Your task to perform on an android device: open app "Yahoo Mail" (install if not already installed) Image 0: 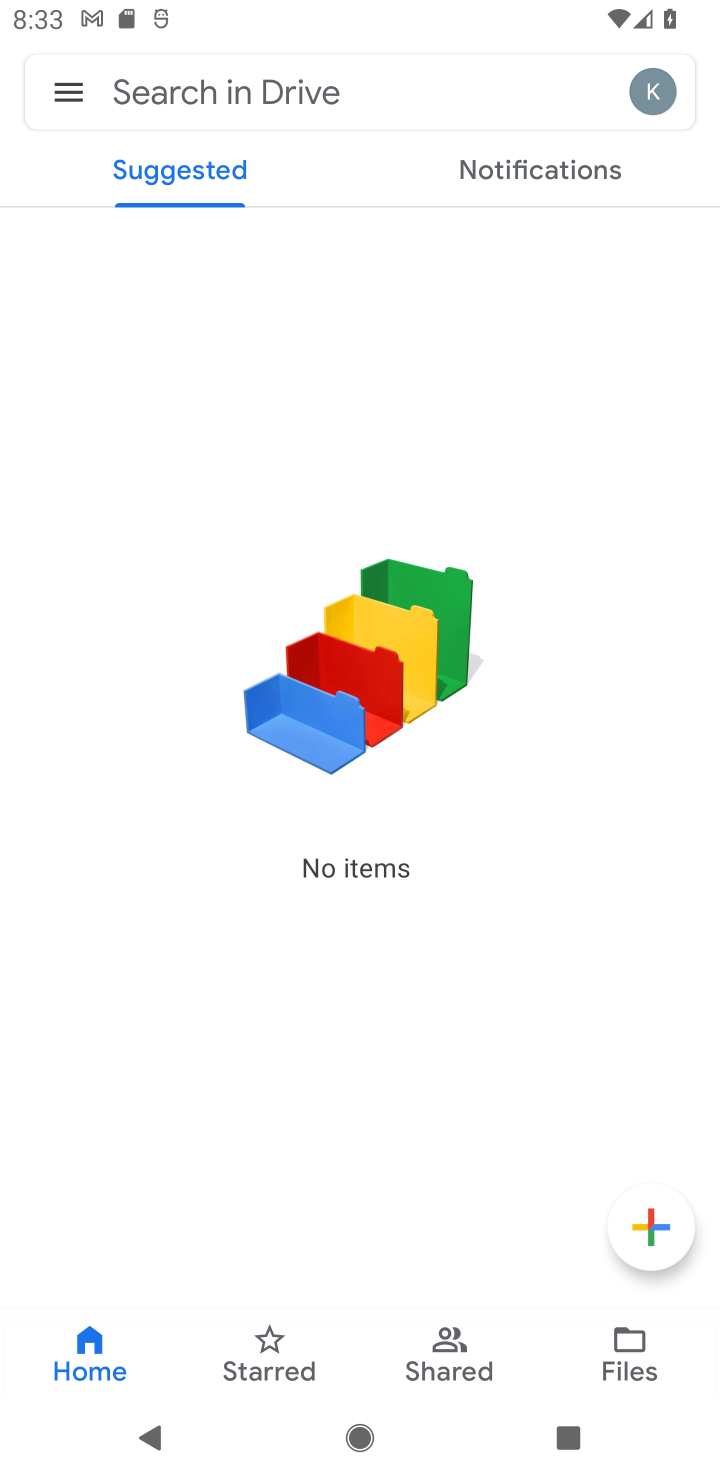
Step 0: press home button
Your task to perform on an android device: open app "Yahoo Mail" (install if not already installed) Image 1: 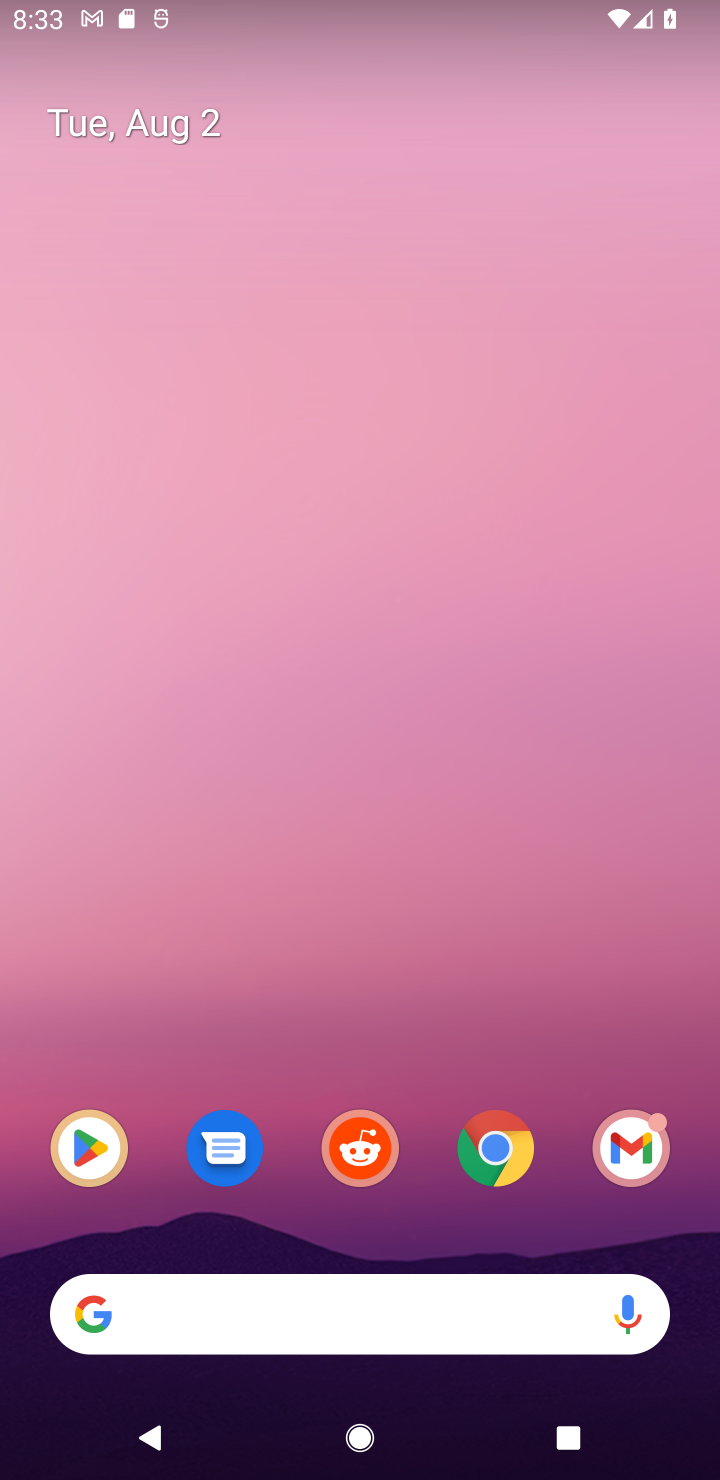
Step 1: drag from (480, 951) to (216, 201)
Your task to perform on an android device: open app "Yahoo Mail" (install if not already installed) Image 2: 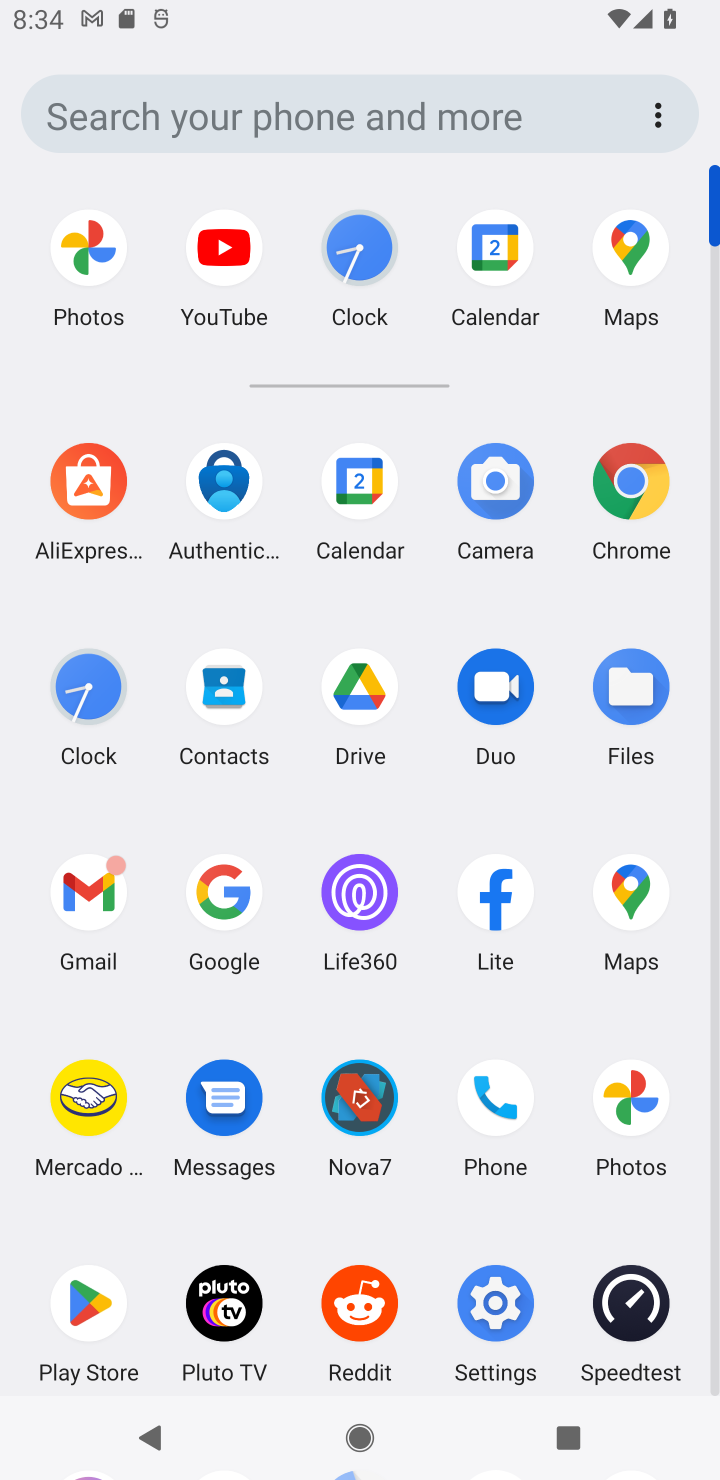
Step 2: click (80, 1295)
Your task to perform on an android device: open app "Yahoo Mail" (install if not already installed) Image 3: 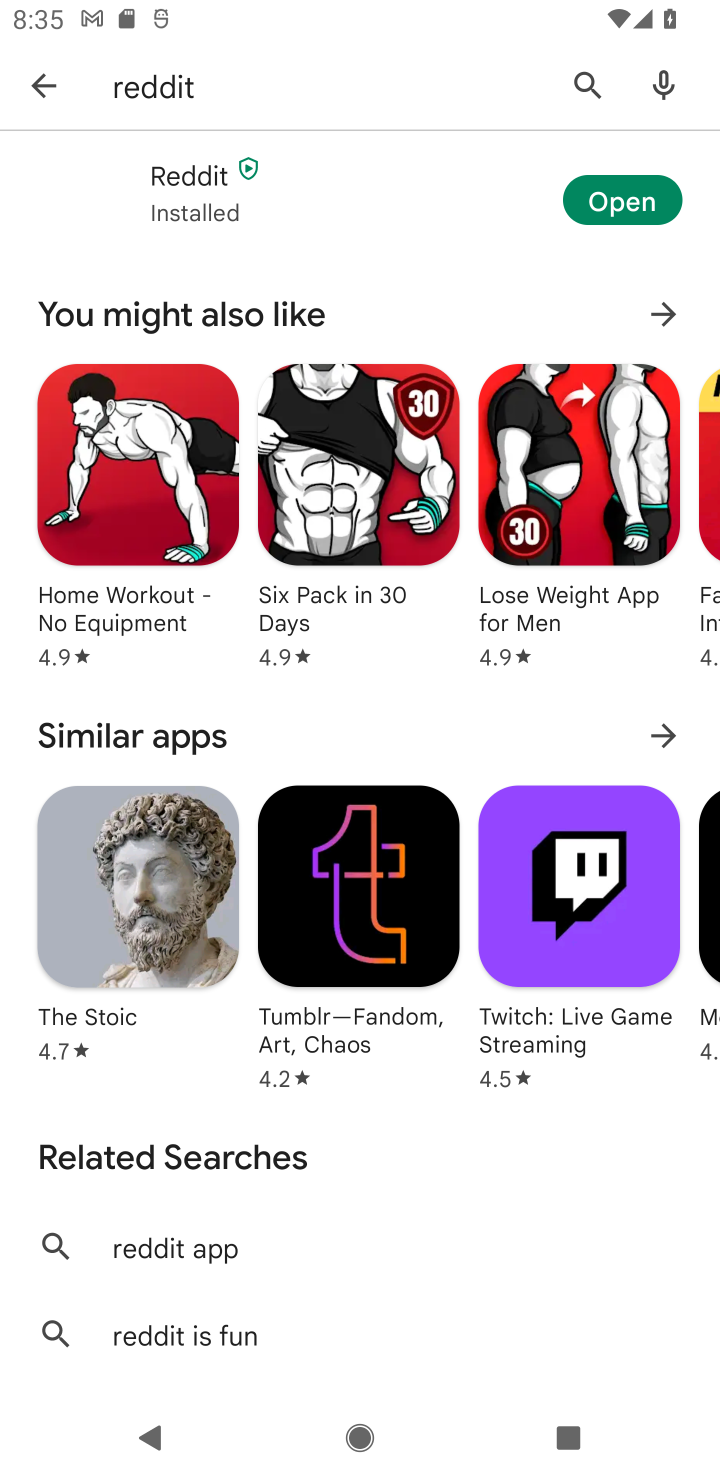
Step 3: press home button
Your task to perform on an android device: open app "Yahoo Mail" (install if not already installed) Image 4: 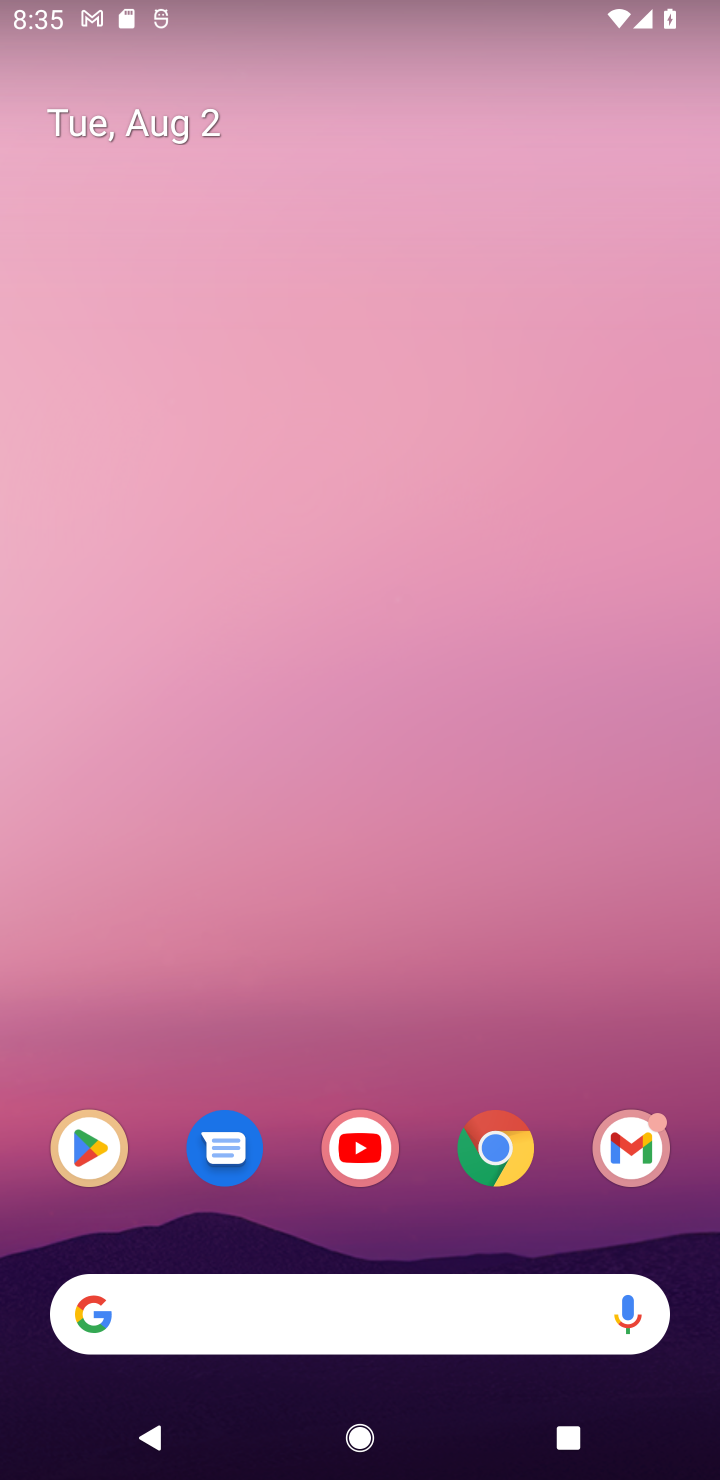
Step 4: drag from (460, 1197) to (339, 243)
Your task to perform on an android device: open app "Yahoo Mail" (install if not already installed) Image 5: 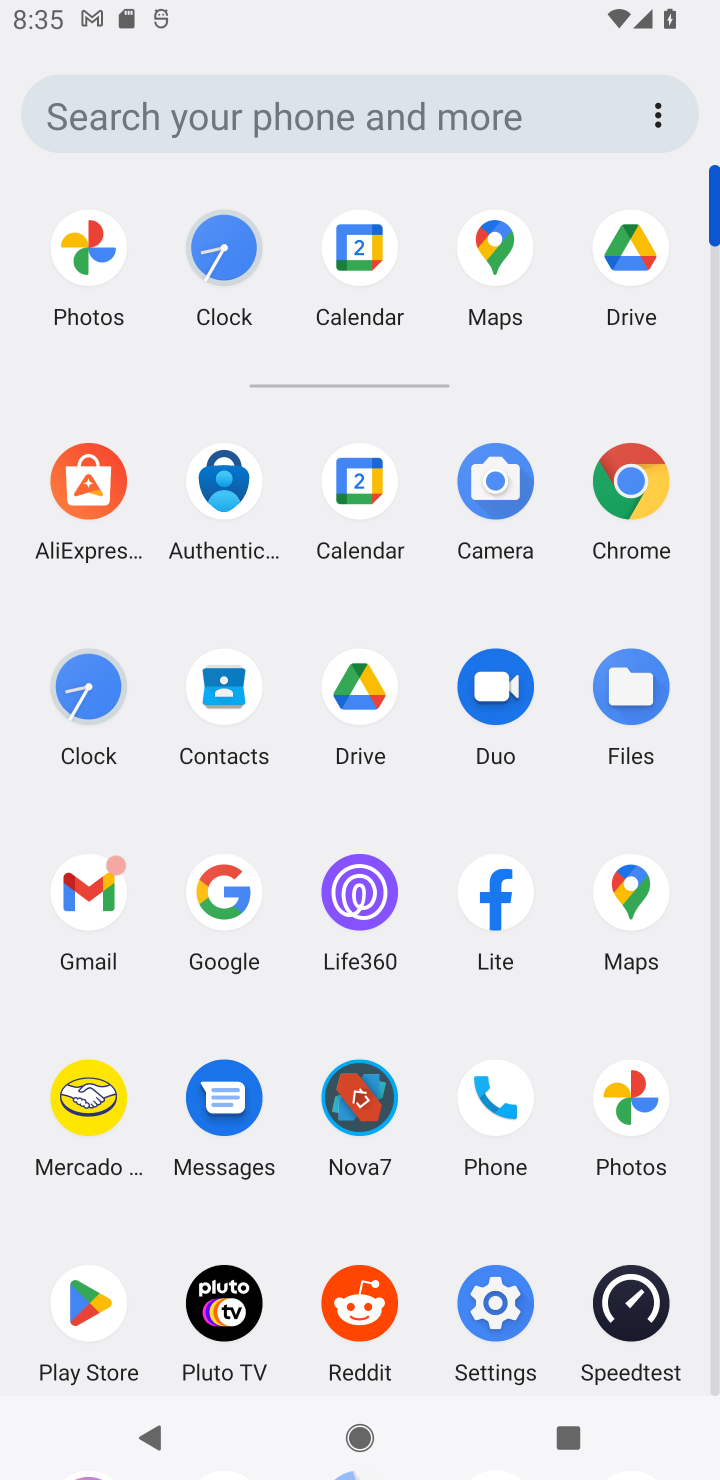
Step 5: click (86, 1299)
Your task to perform on an android device: open app "Yahoo Mail" (install if not already installed) Image 6: 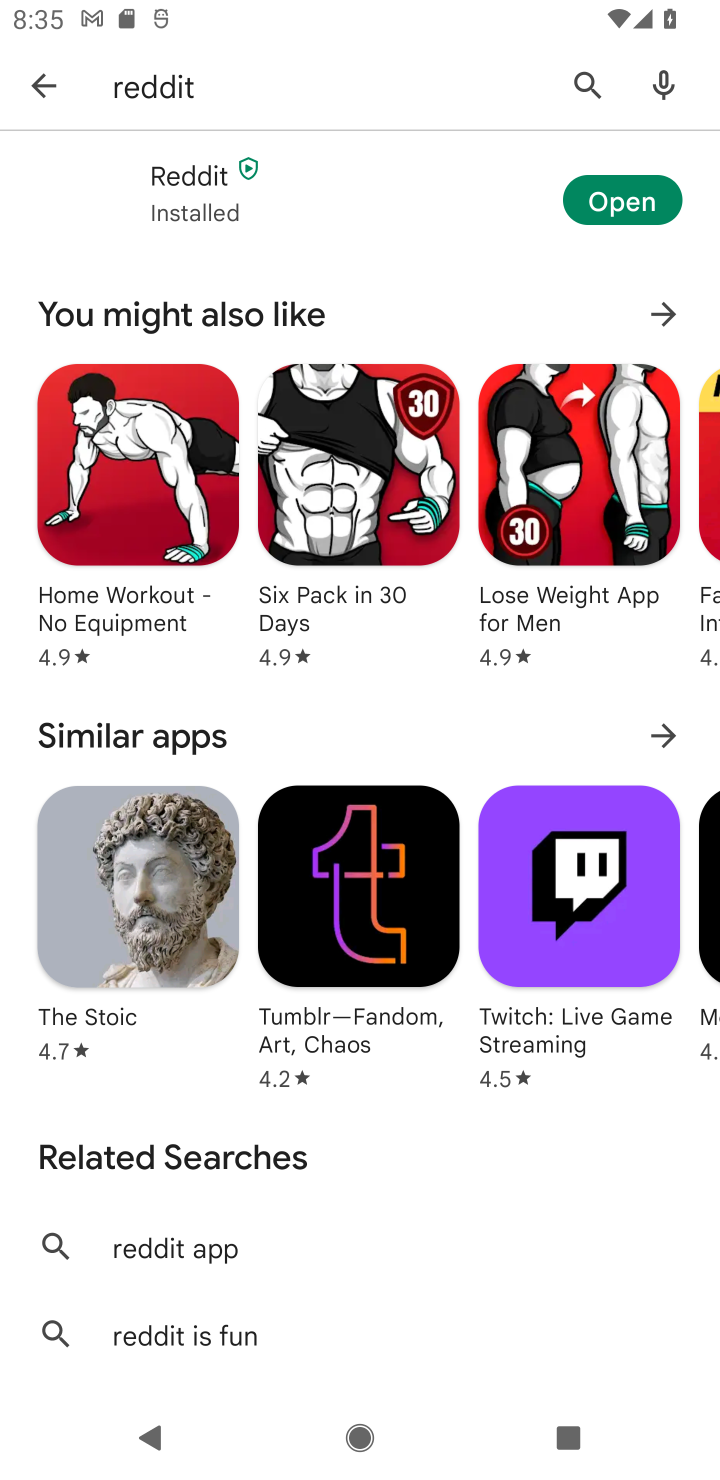
Step 6: press back button
Your task to perform on an android device: open app "Yahoo Mail" (install if not already installed) Image 7: 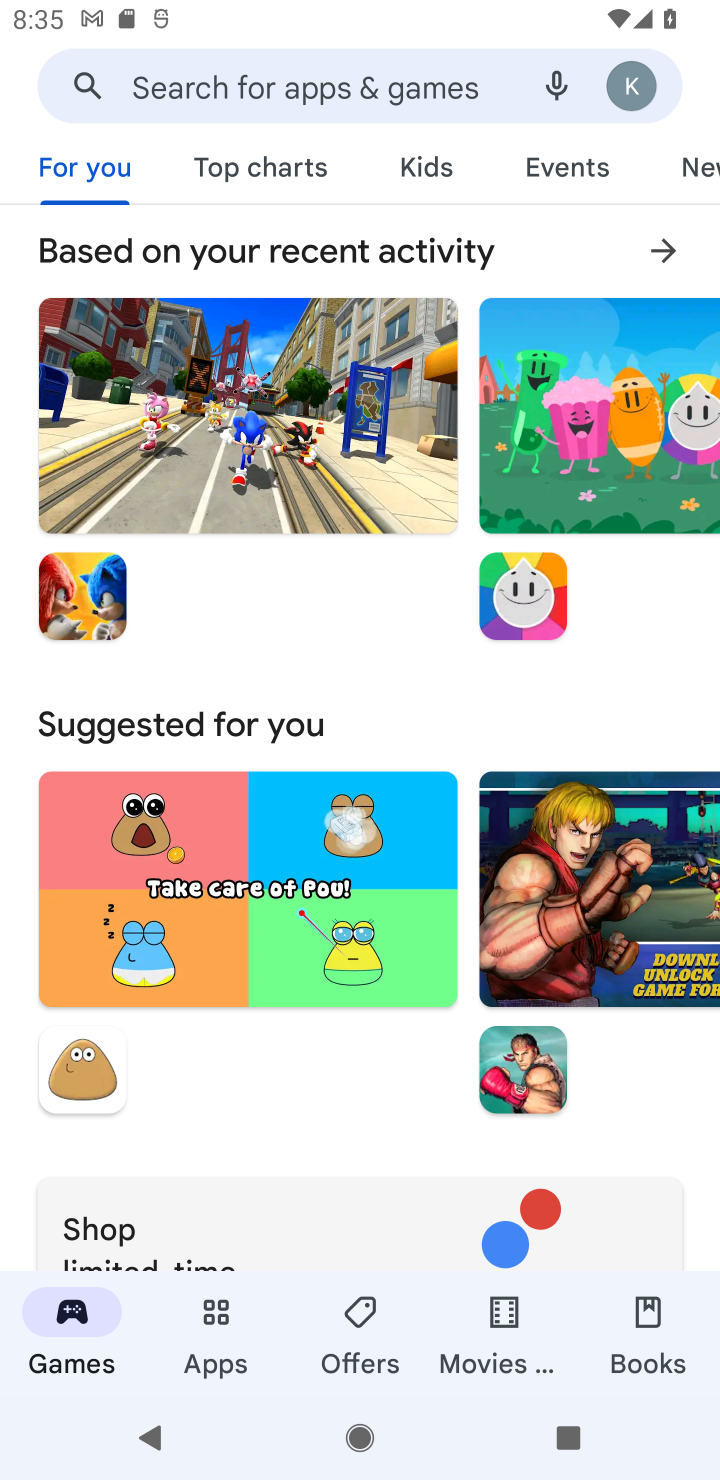
Step 7: click (183, 93)
Your task to perform on an android device: open app "Yahoo Mail" (install if not already installed) Image 8: 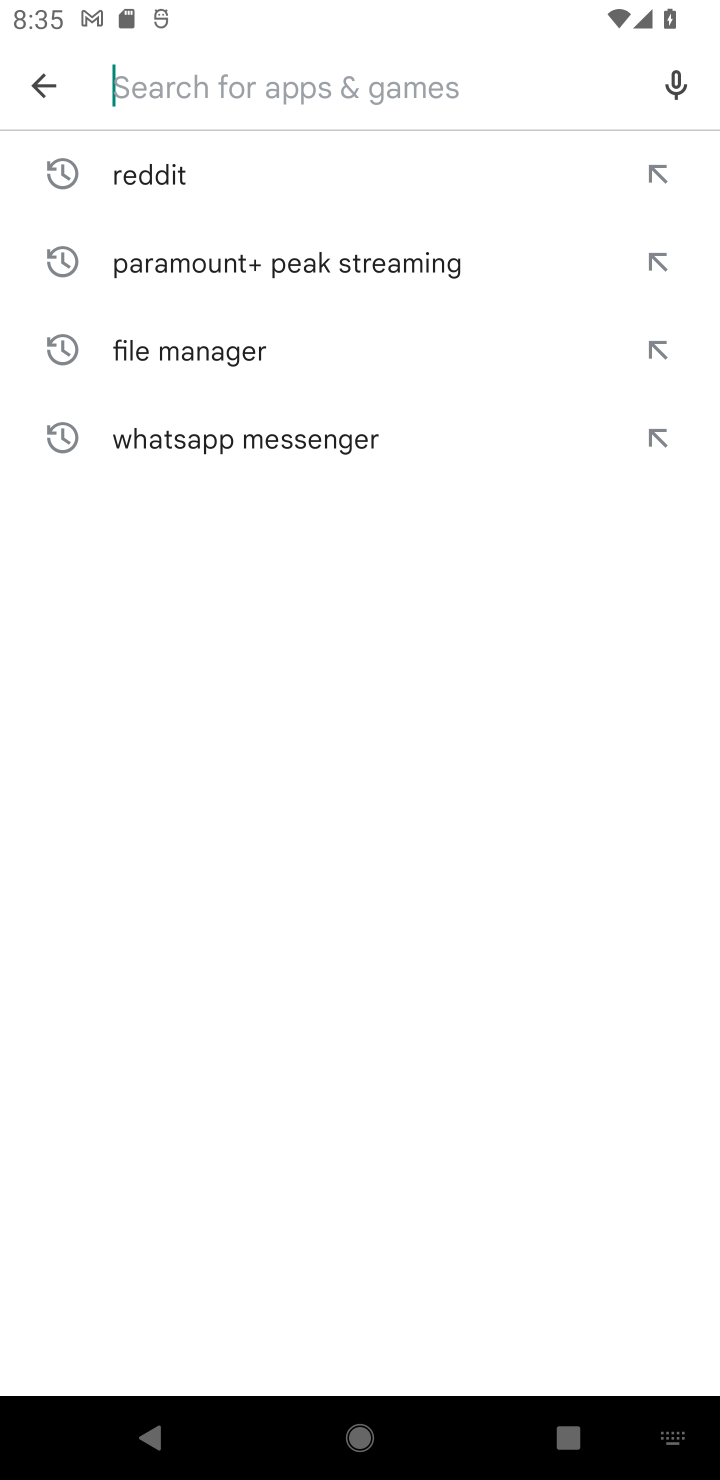
Step 8: type "Yahoo Mail"
Your task to perform on an android device: open app "Yahoo Mail" (install if not already installed) Image 9: 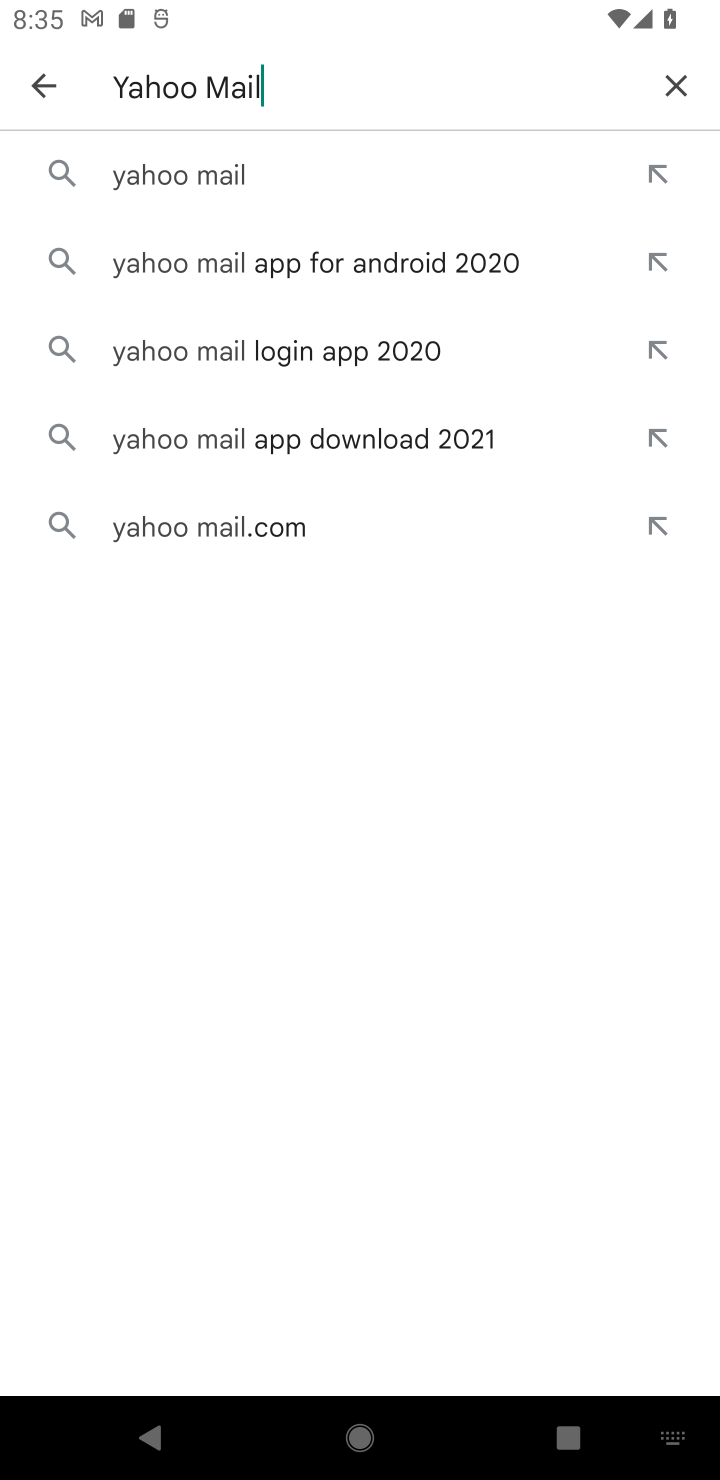
Step 9: click (187, 179)
Your task to perform on an android device: open app "Yahoo Mail" (install if not already installed) Image 10: 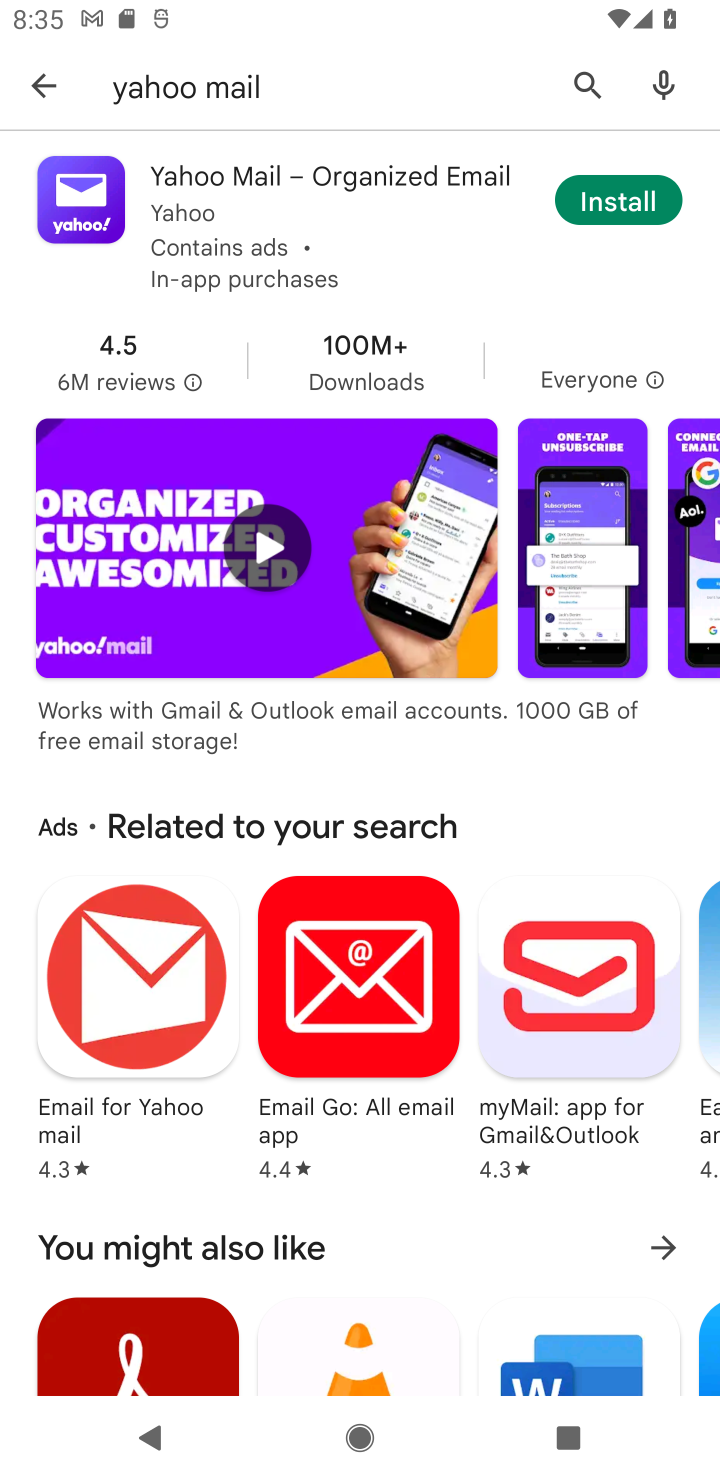
Step 10: task complete